Your task to perform on an android device: toggle pop-ups in chrome Image 0: 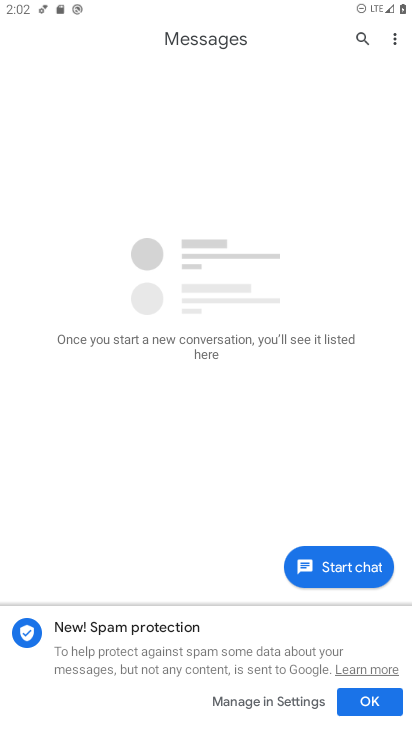
Step 0: press home button
Your task to perform on an android device: toggle pop-ups in chrome Image 1: 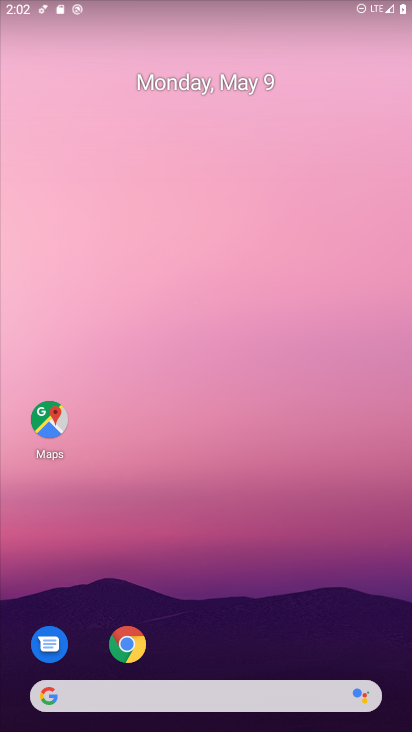
Step 1: click (135, 654)
Your task to perform on an android device: toggle pop-ups in chrome Image 2: 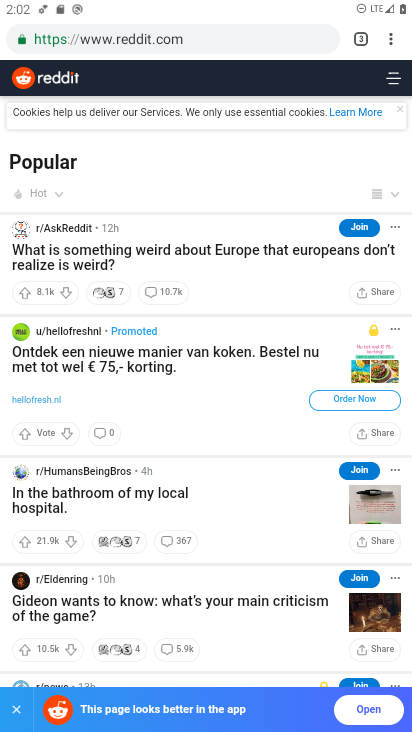
Step 2: click (393, 43)
Your task to perform on an android device: toggle pop-ups in chrome Image 3: 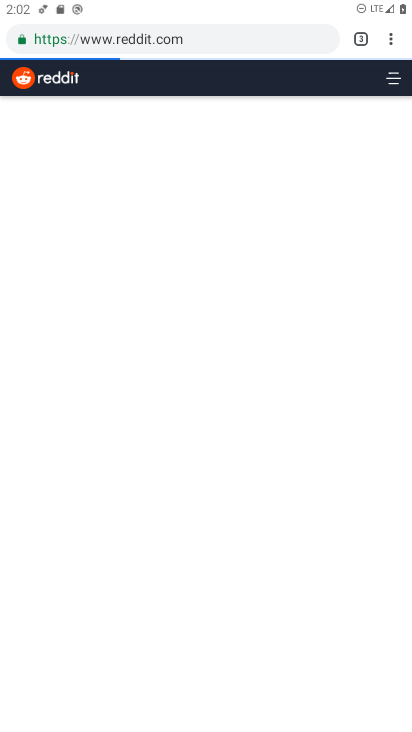
Step 3: click (392, 42)
Your task to perform on an android device: toggle pop-ups in chrome Image 4: 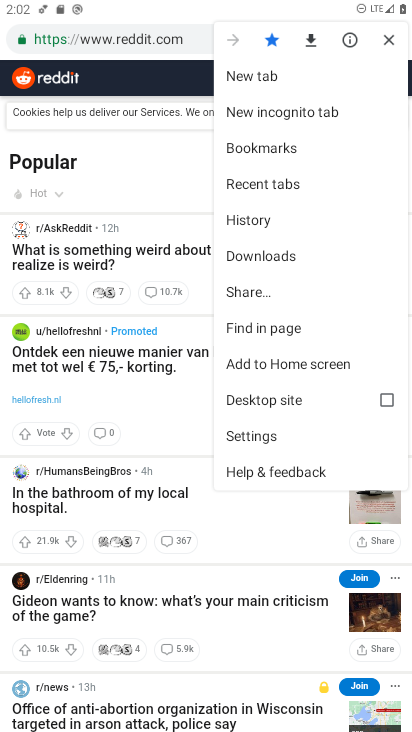
Step 4: click (274, 439)
Your task to perform on an android device: toggle pop-ups in chrome Image 5: 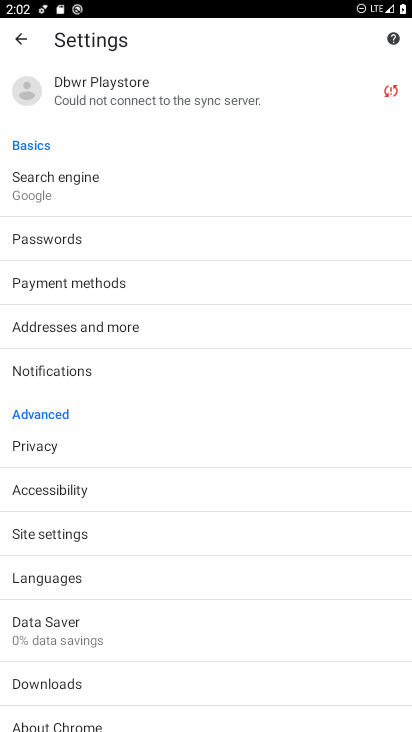
Step 5: drag from (106, 666) to (199, 331)
Your task to perform on an android device: toggle pop-ups in chrome Image 6: 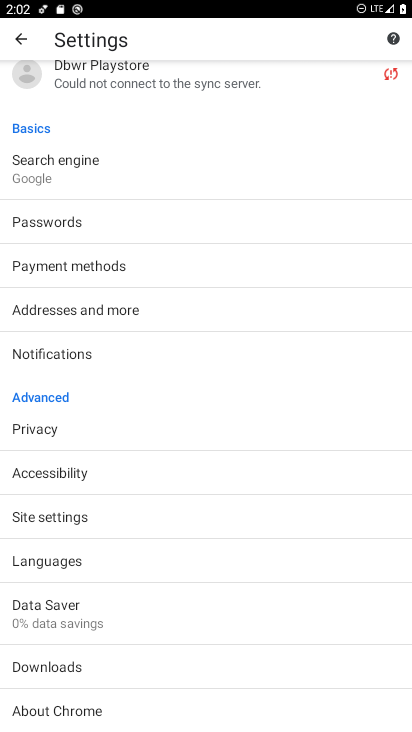
Step 6: drag from (63, 643) to (125, 321)
Your task to perform on an android device: toggle pop-ups in chrome Image 7: 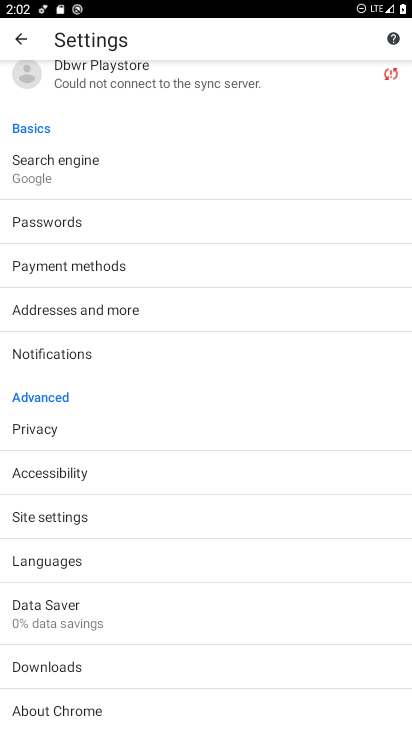
Step 7: click (74, 522)
Your task to perform on an android device: toggle pop-ups in chrome Image 8: 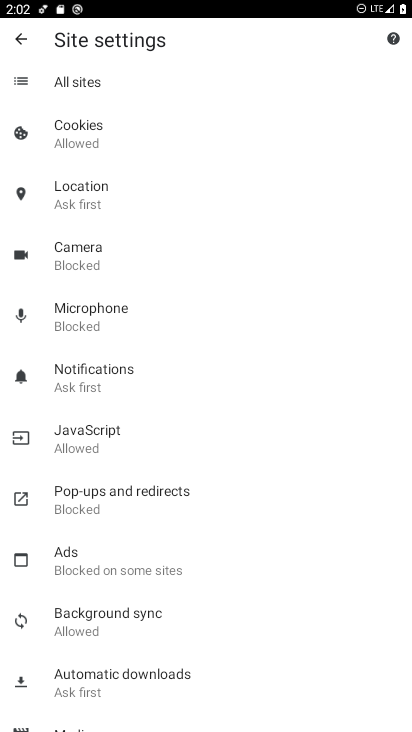
Step 8: click (78, 516)
Your task to perform on an android device: toggle pop-ups in chrome Image 9: 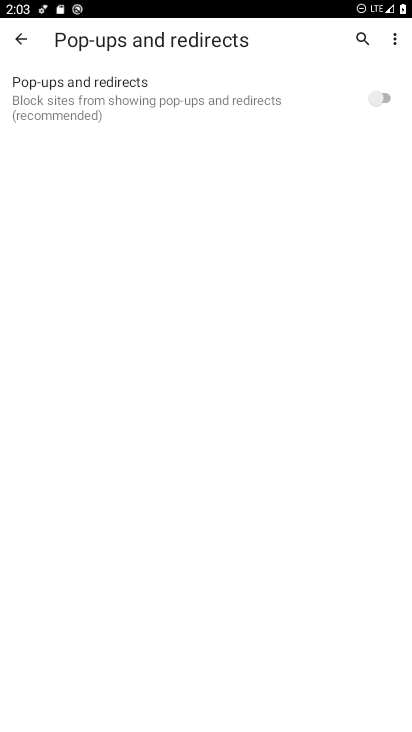
Step 9: click (388, 104)
Your task to perform on an android device: toggle pop-ups in chrome Image 10: 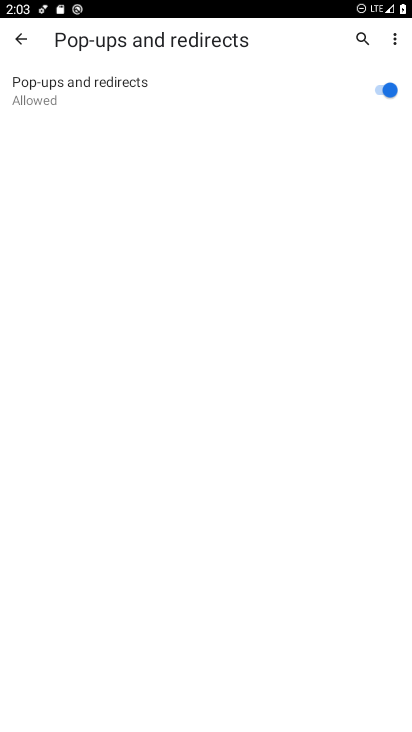
Step 10: task complete